Your task to perform on an android device: How much does a 2 bedroom apartment rent for in Washington DC? Image 0: 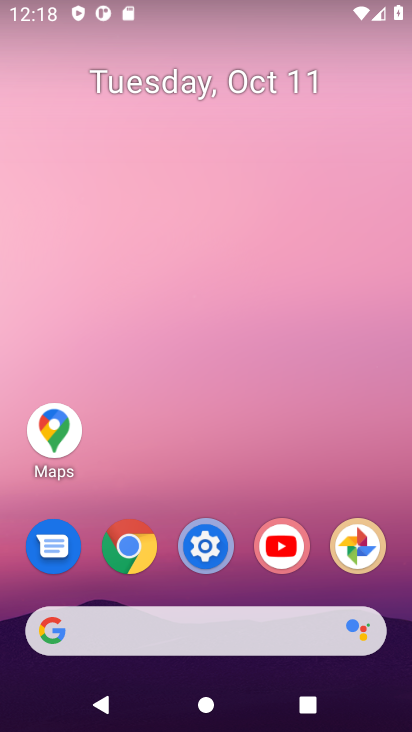
Step 0: click (118, 556)
Your task to perform on an android device: How much does a 2 bedroom apartment rent for in Washington DC? Image 1: 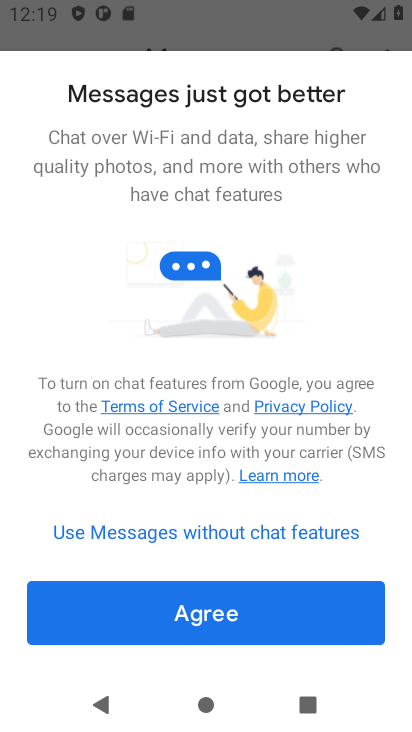
Step 1: press home button
Your task to perform on an android device: How much does a 2 bedroom apartment rent for in Washington DC? Image 2: 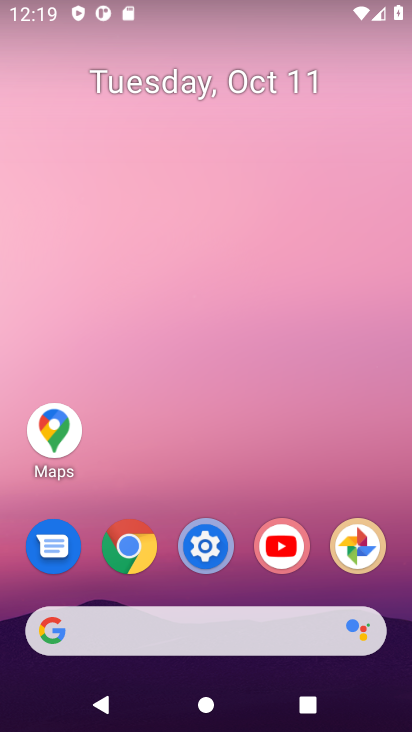
Step 2: click (136, 555)
Your task to perform on an android device: How much does a 2 bedroom apartment rent for in Washington DC? Image 3: 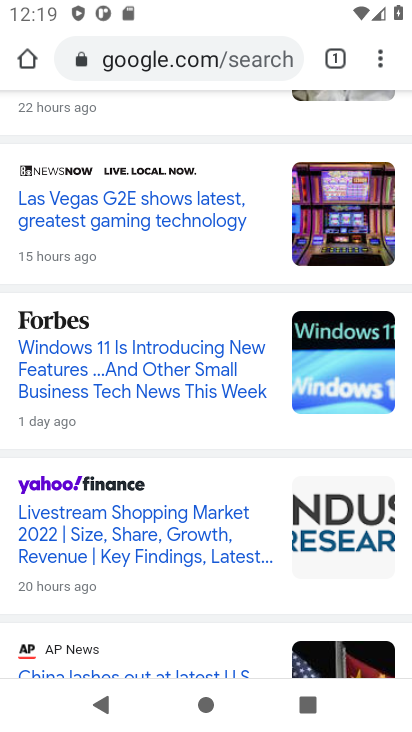
Step 3: click (185, 59)
Your task to perform on an android device: How much does a 2 bedroom apartment rent for in Washington DC? Image 4: 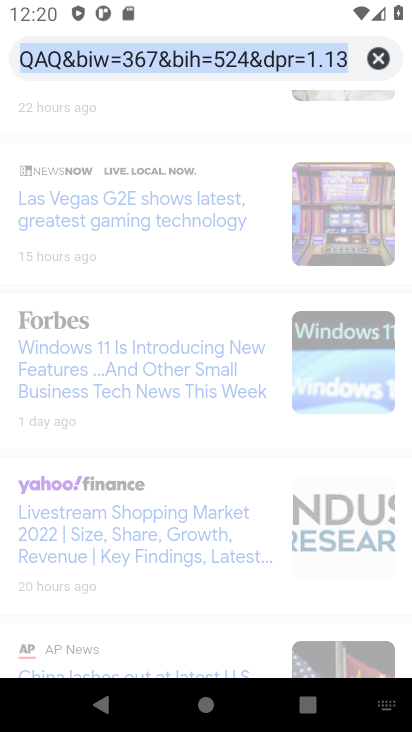
Step 4: type "2 bedroom apartment in Washington DC"
Your task to perform on an android device: How much does a 2 bedroom apartment rent for in Washington DC? Image 5: 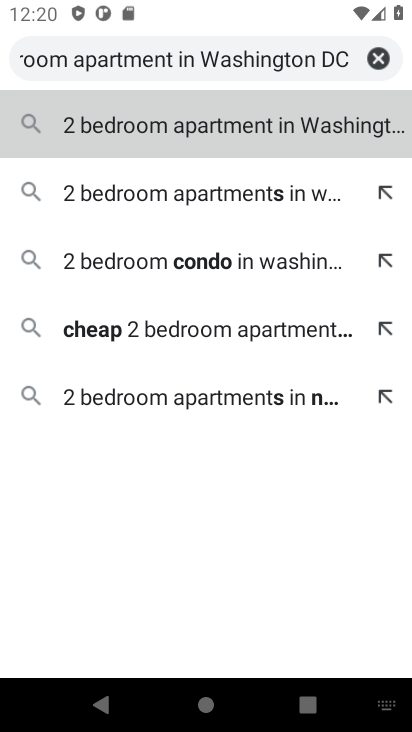
Step 5: press enter
Your task to perform on an android device: How much does a 2 bedroom apartment rent for in Washington DC? Image 6: 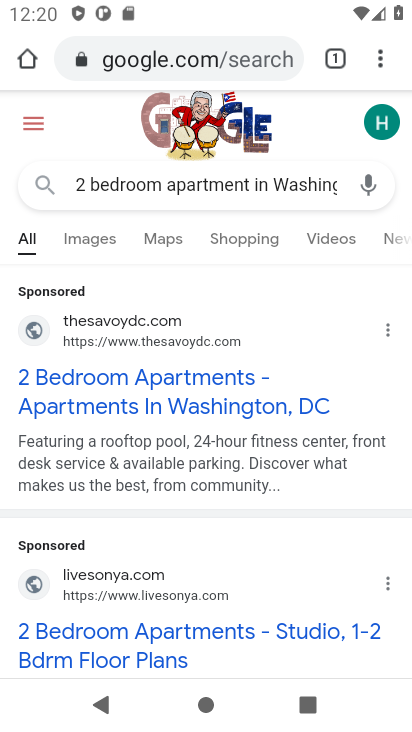
Step 6: drag from (148, 399) to (164, 188)
Your task to perform on an android device: How much does a 2 bedroom apartment rent for in Washington DC? Image 7: 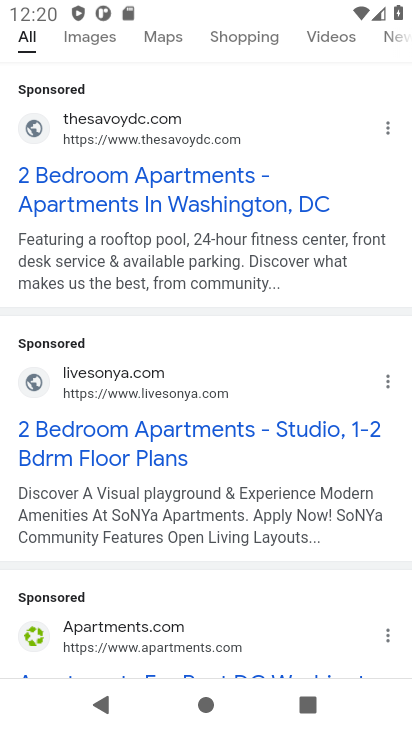
Step 7: drag from (195, 506) to (193, 276)
Your task to perform on an android device: How much does a 2 bedroom apartment rent for in Washington DC? Image 8: 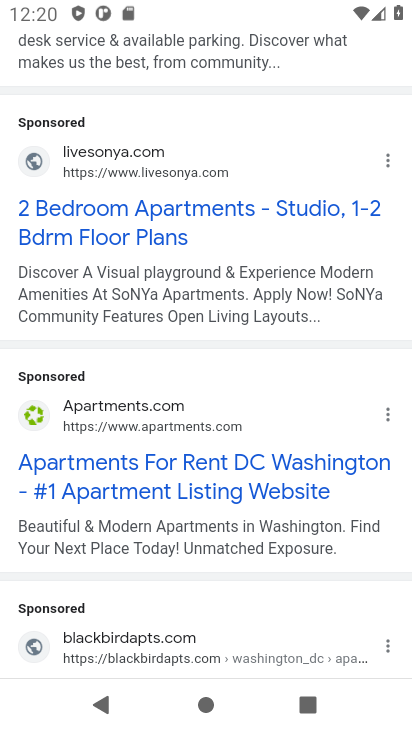
Step 8: click (198, 476)
Your task to perform on an android device: How much does a 2 bedroom apartment rent for in Washington DC? Image 9: 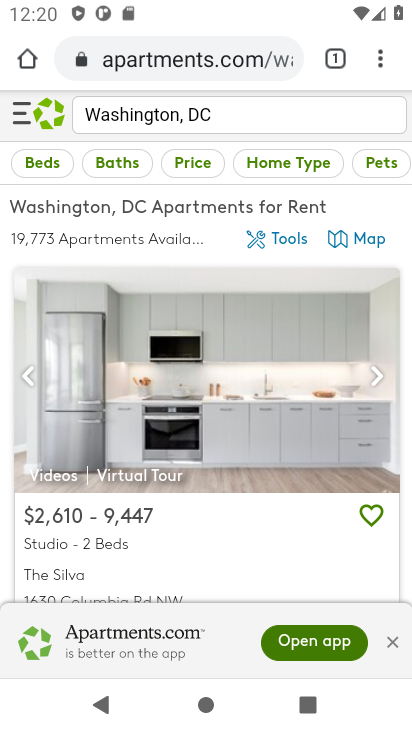
Step 9: drag from (199, 476) to (180, 286)
Your task to perform on an android device: How much does a 2 bedroom apartment rent for in Washington DC? Image 10: 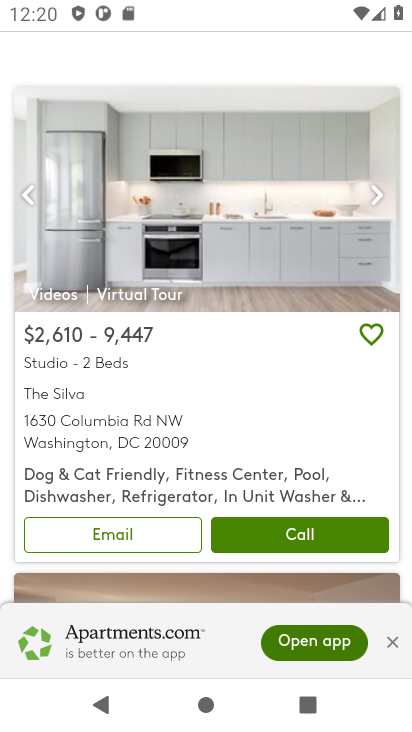
Step 10: drag from (234, 521) to (227, 187)
Your task to perform on an android device: How much does a 2 bedroom apartment rent for in Washington DC? Image 11: 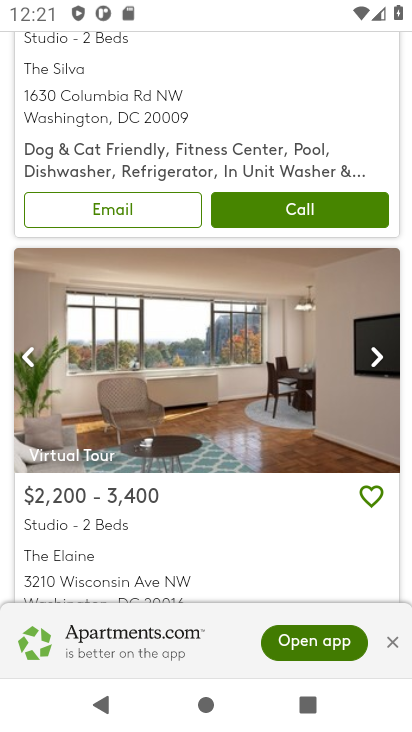
Step 11: click (133, 537)
Your task to perform on an android device: How much does a 2 bedroom apartment rent for in Washington DC? Image 12: 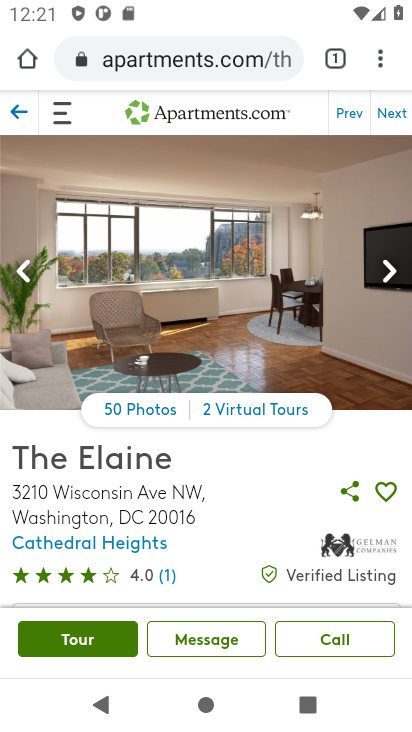
Step 12: click (388, 275)
Your task to perform on an android device: How much does a 2 bedroom apartment rent for in Washington DC? Image 13: 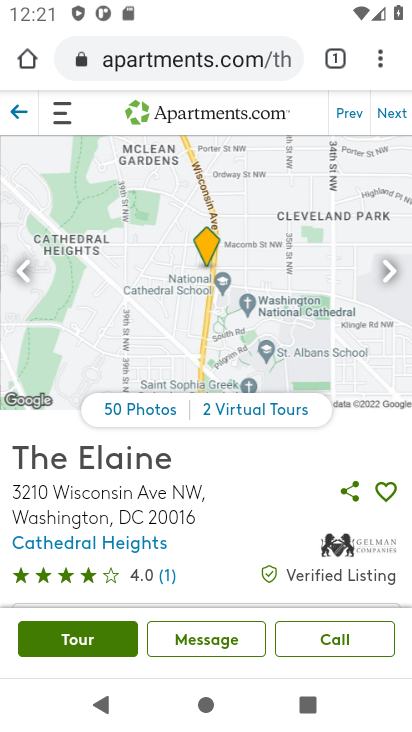
Step 13: click (388, 275)
Your task to perform on an android device: How much does a 2 bedroom apartment rent for in Washington DC? Image 14: 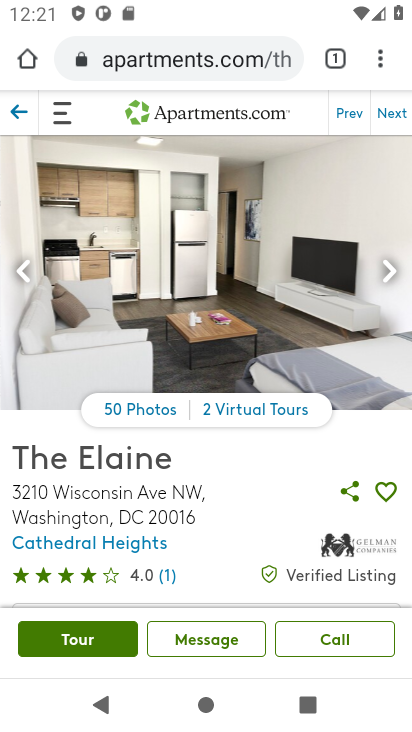
Step 14: click (388, 275)
Your task to perform on an android device: How much does a 2 bedroom apartment rent for in Washington DC? Image 15: 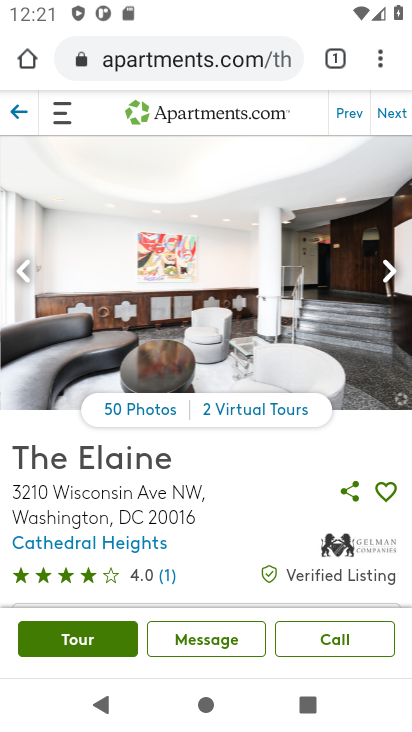
Step 15: click (388, 275)
Your task to perform on an android device: How much does a 2 bedroom apartment rent for in Washington DC? Image 16: 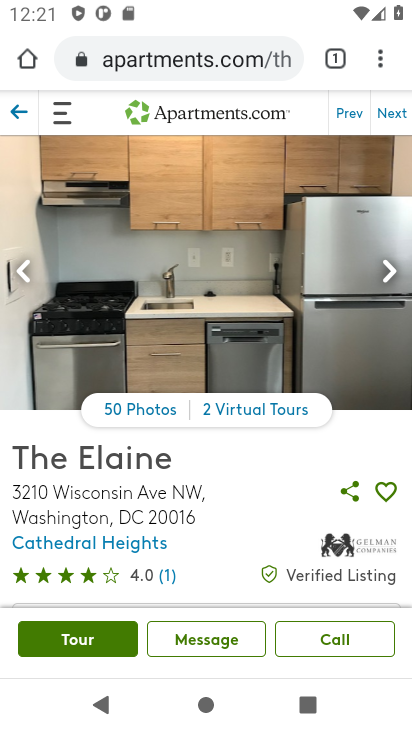
Step 16: click (388, 275)
Your task to perform on an android device: How much does a 2 bedroom apartment rent for in Washington DC? Image 17: 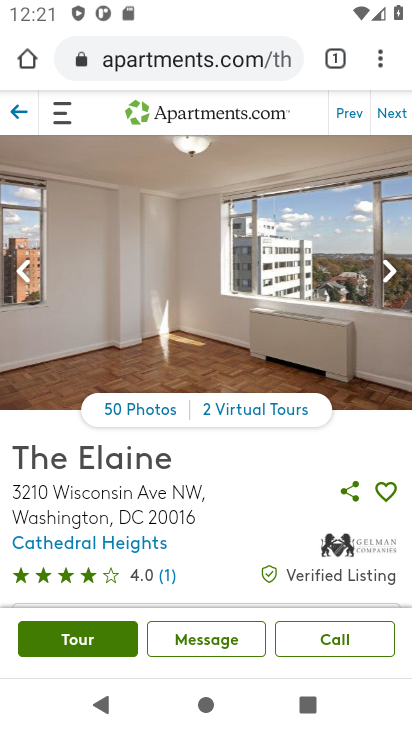
Step 17: task complete